Your task to perform on an android device: Show me the alarms in the clock app Image 0: 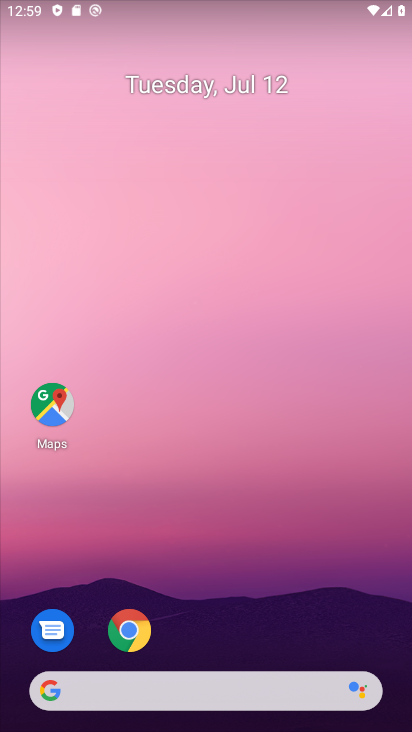
Step 0: drag from (367, 629) to (310, 284)
Your task to perform on an android device: Show me the alarms in the clock app Image 1: 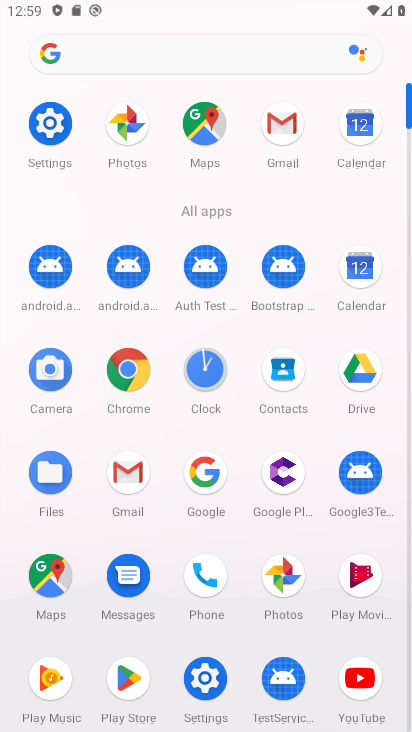
Step 1: click (205, 368)
Your task to perform on an android device: Show me the alarms in the clock app Image 2: 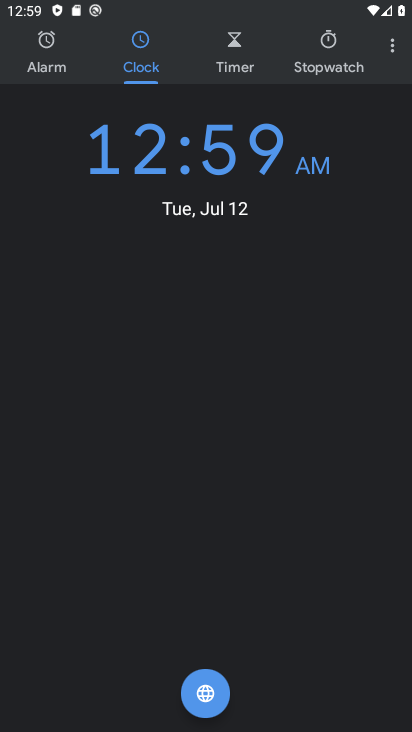
Step 2: click (47, 51)
Your task to perform on an android device: Show me the alarms in the clock app Image 3: 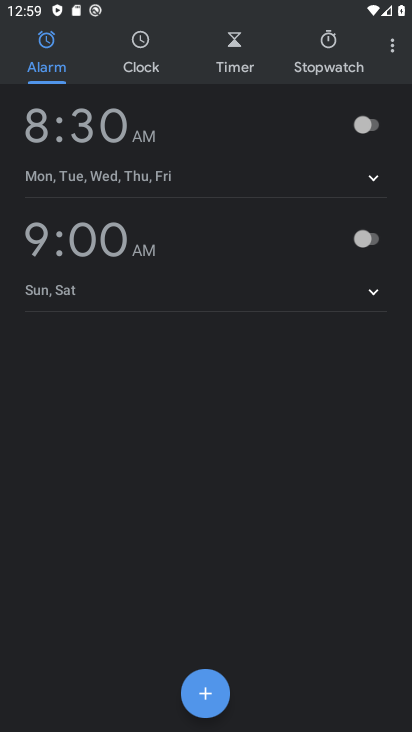
Step 3: task complete